Your task to perform on an android device: star an email in the gmail app Image 0: 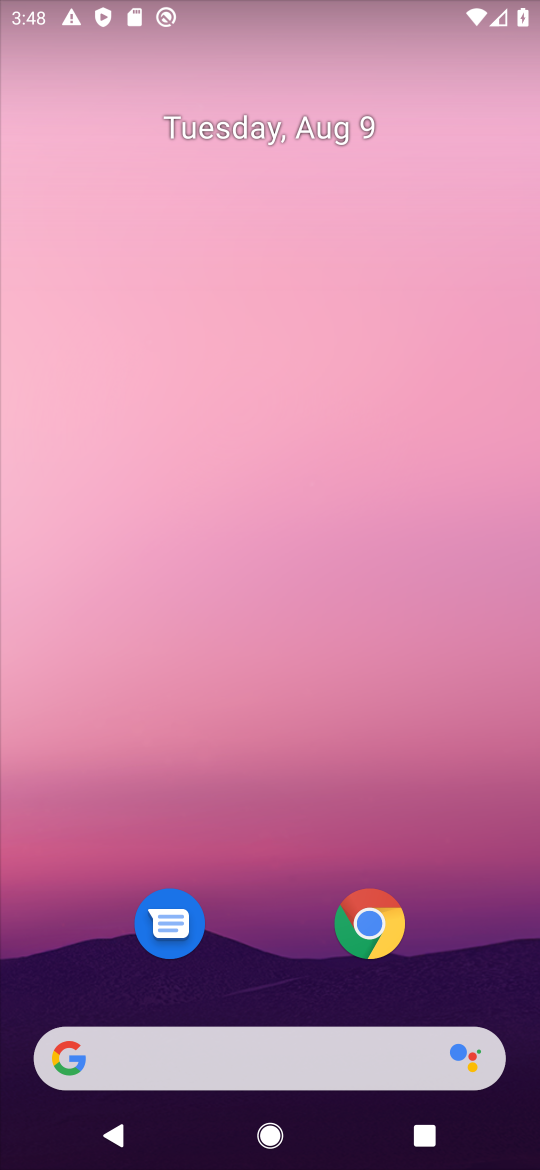
Step 0: drag from (271, 968) to (329, 165)
Your task to perform on an android device: star an email in the gmail app Image 1: 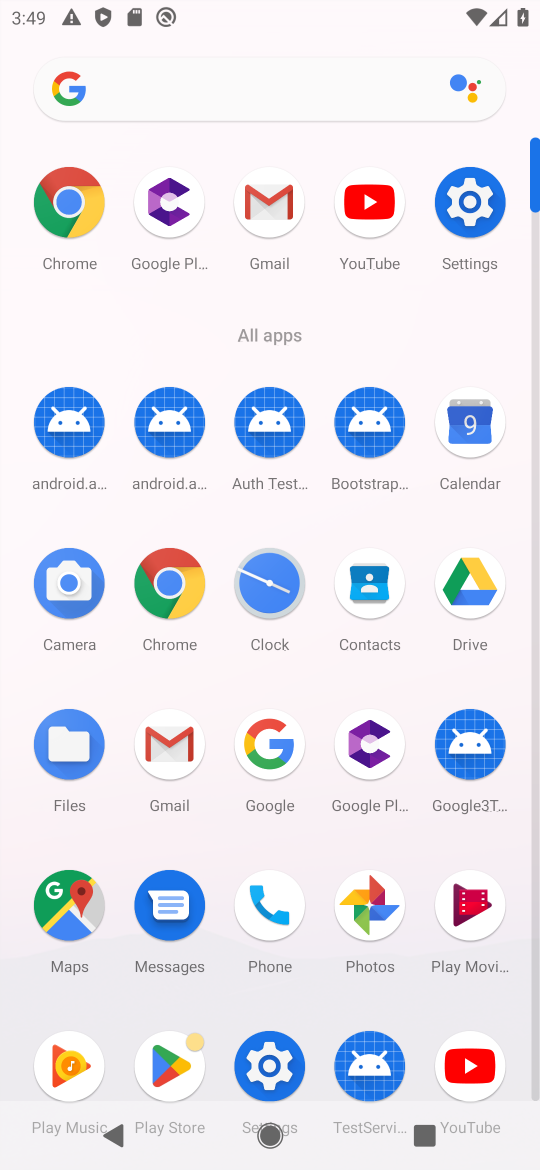
Step 1: click (269, 206)
Your task to perform on an android device: star an email in the gmail app Image 2: 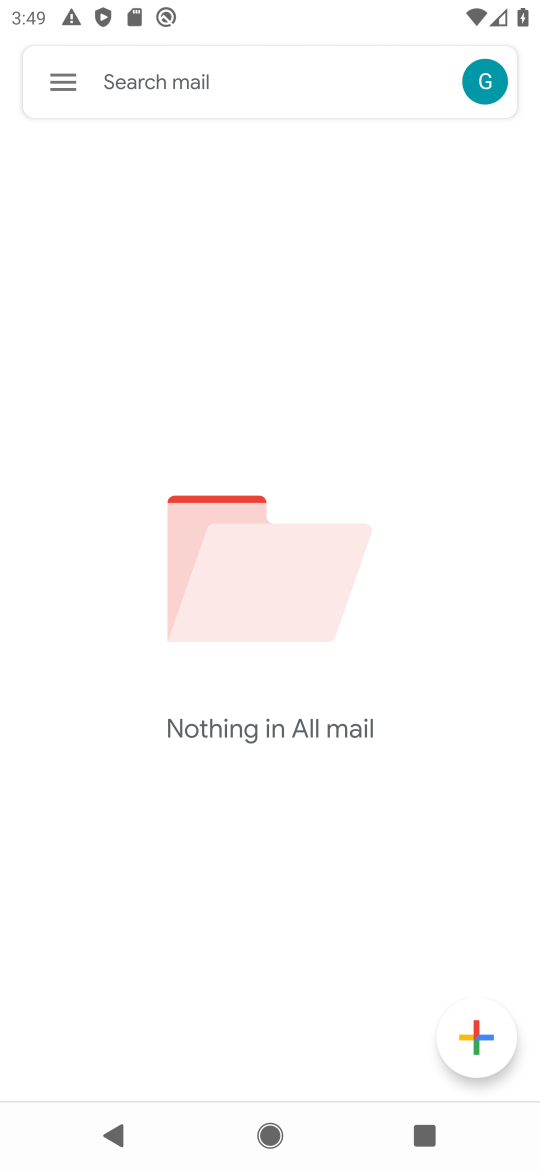
Step 2: task complete